Your task to perform on an android device: Open location settings Image 0: 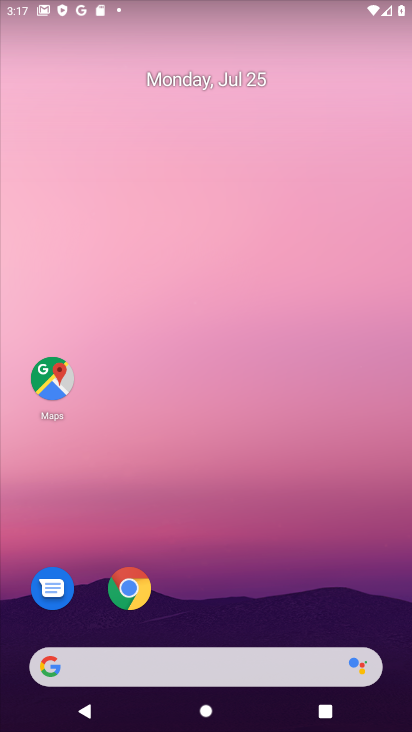
Step 0: drag from (383, 597) to (305, 7)
Your task to perform on an android device: Open location settings Image 1: 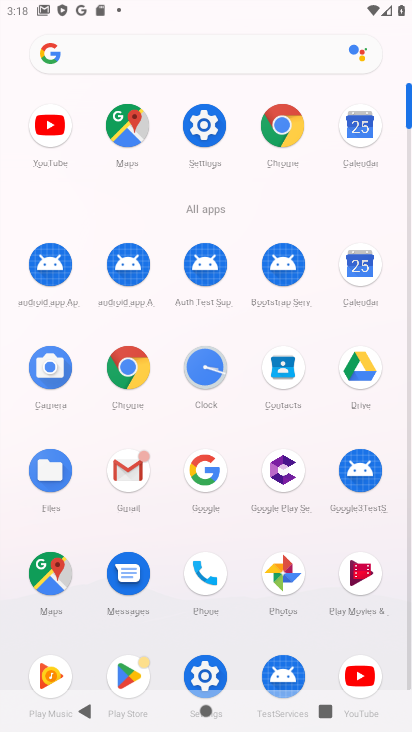
Step 1: click (204, 132)
Your task to perform on an android device: Open location settings Image 2: 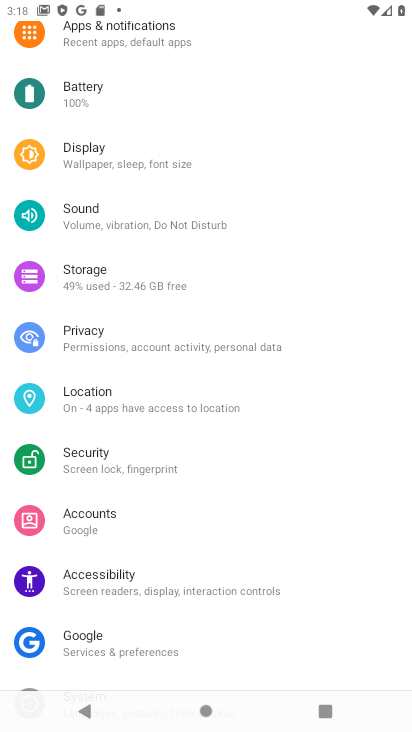
Step 2: click (71, 403)
Your task to perform on an android device: Open location settings Image 3: 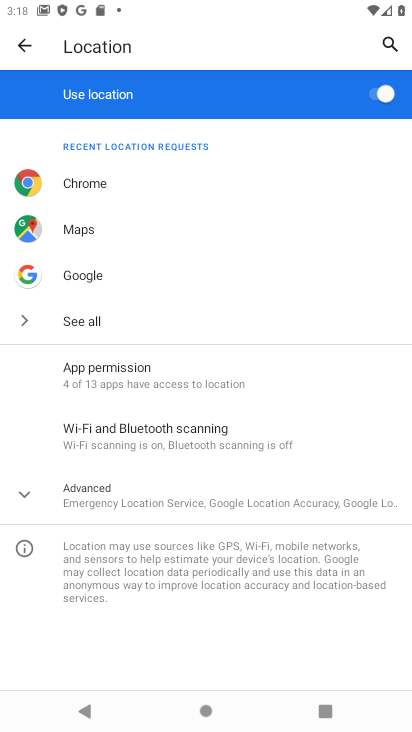
Step 3: click (32, 498)
Your task to perform on an android device: Open location settings Image 4: 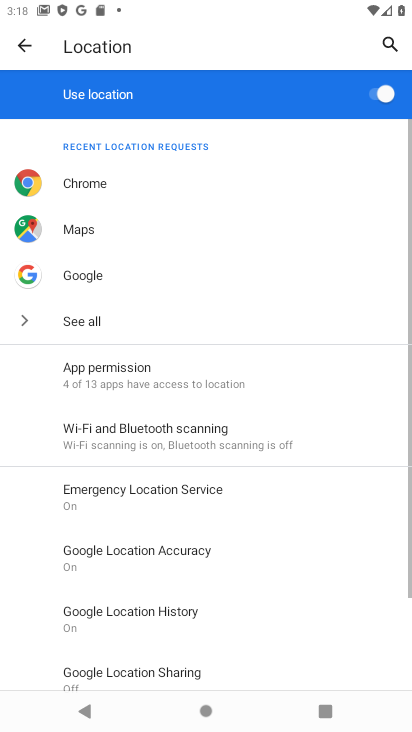
Step 4: task complete